Your task to perform on an android device: Open the phone app and click the voicemail tab. Image 0: 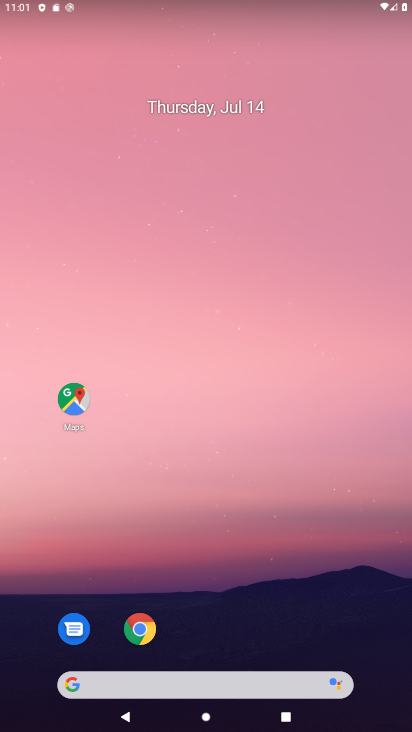
Step 0: drag from (245, 622) to (282, 100)
Your task to perform on an android device: Open the phone app and click the voicemail tab. Image 1: 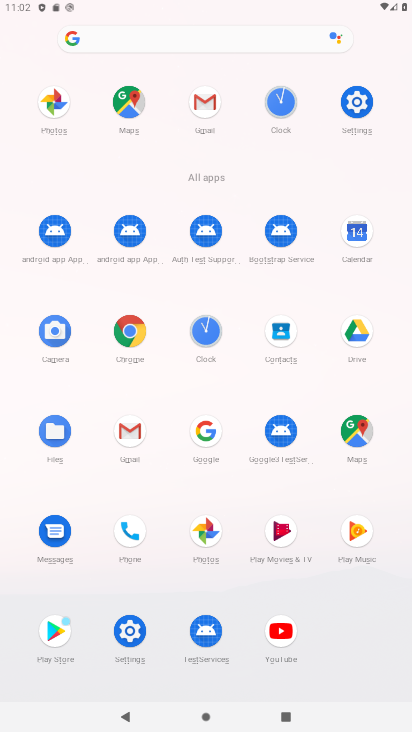
Step 1: click (138, 530)
Your task to perform on an android device: Open the phone app and click the voicemail tab. Image 2: 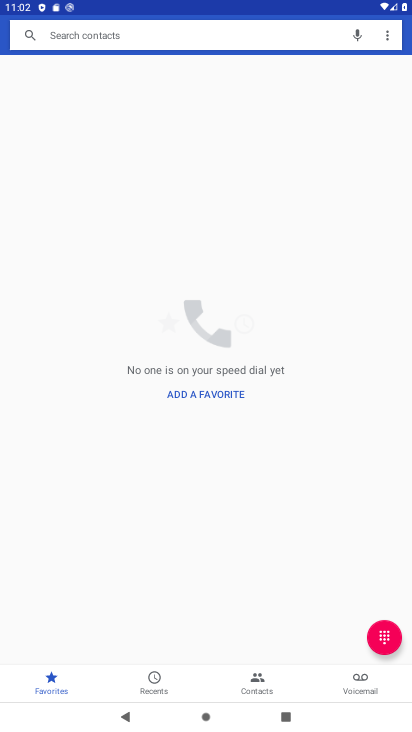
Step 2: click (366, 676)
Your task to perform on an android device: Open the phone app and click the voicemail tab. Image 3: 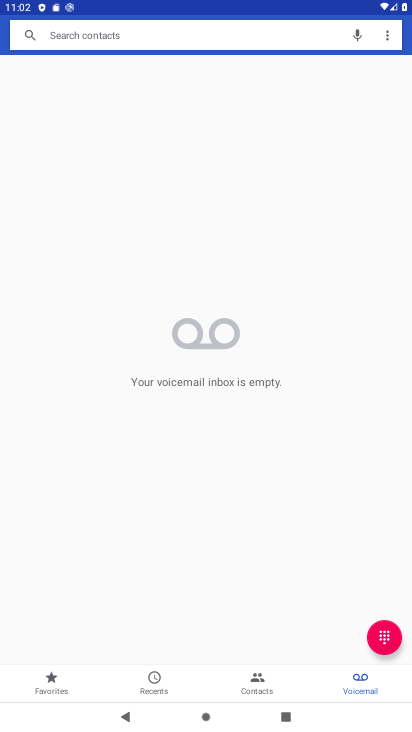
Step 3: task complete